Your task to perform on an android device: Go to display settings Image 0: 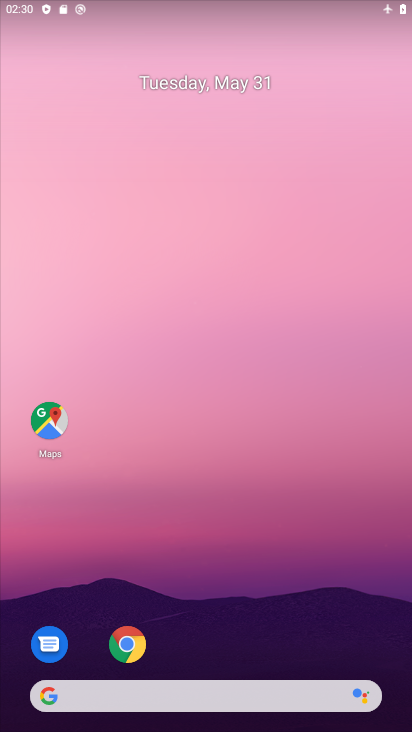
Step 0: drag from (309, 574) to (258, 16)
Your task to perform on an android device: Go to display settings Image 1: 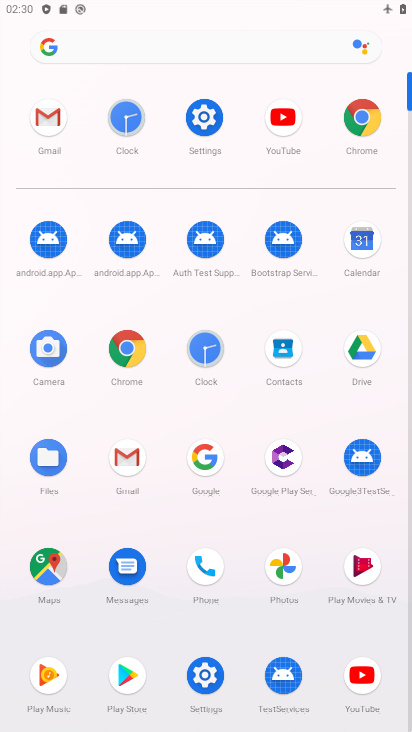
Step 1: click (195, 109)
Your task to perform on an android device: Go to display settings Image 2: 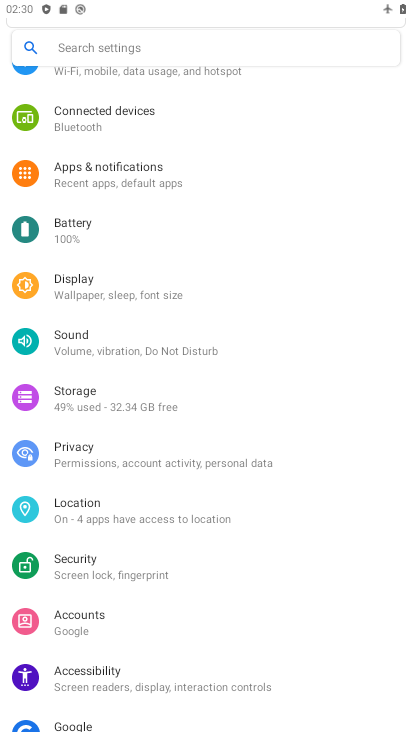
Step 2: click (116, 295)
Your task to perform on an android device: Go to display settings Image 3: 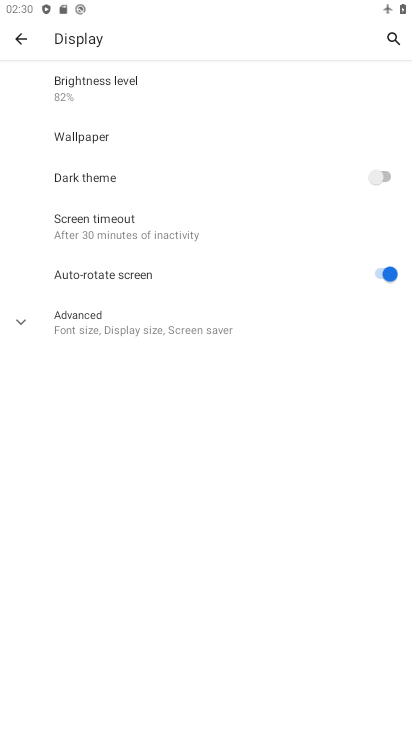
Step 3: task complete